Your task to perform on an android device: turn on translation in the chrome app Image 0: 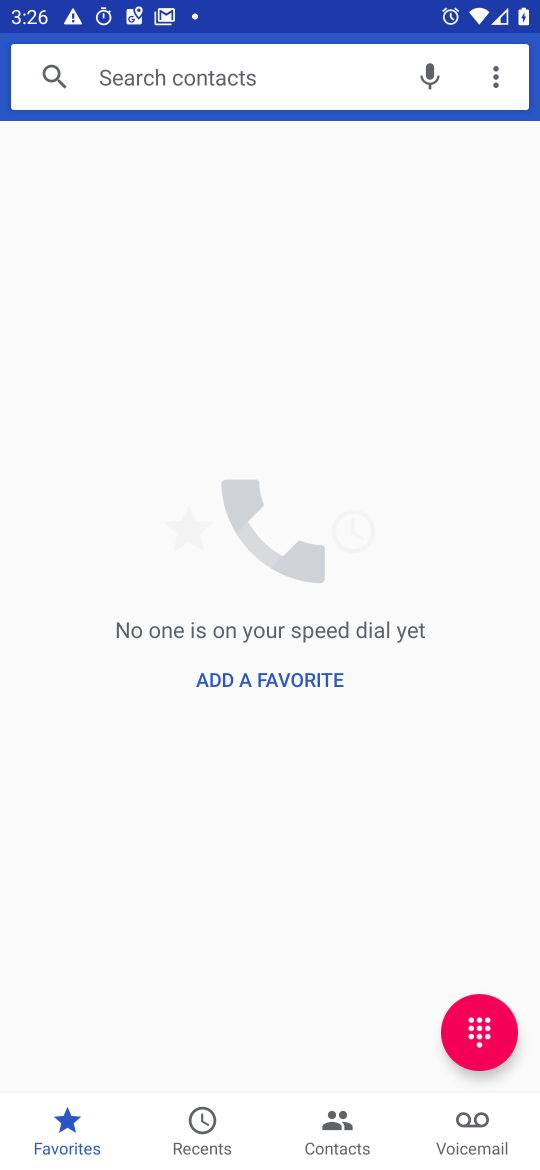
Step 0: press home button
Your task to perform on an android device: turn on translation in the chrome app Image 1: 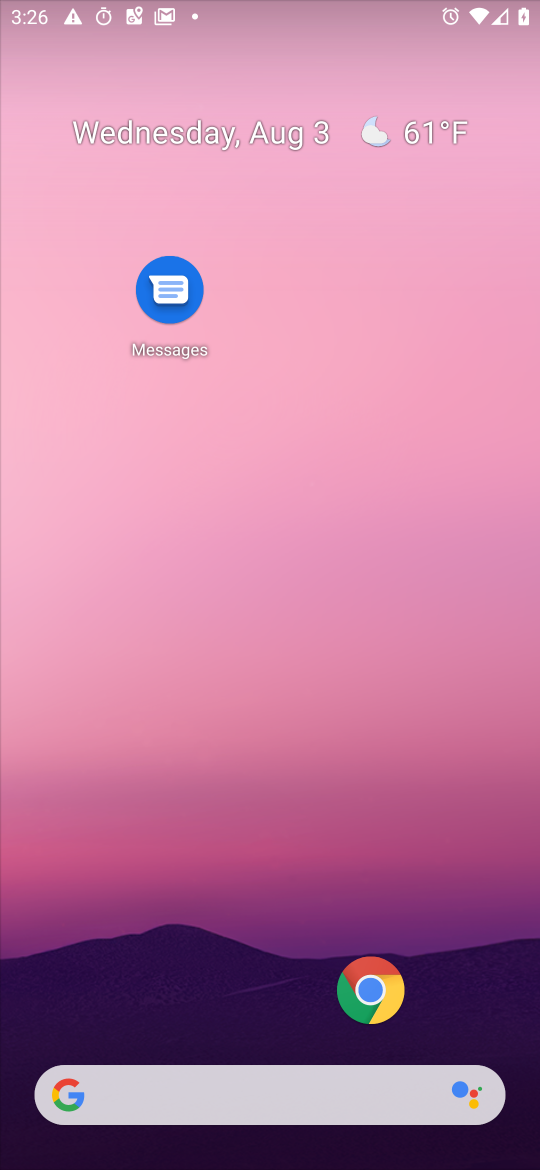
Step 1: drag from (276, 1026) to (281, 200)
Your task to perform on an android device: turn on translation in the chrome app Image 2: 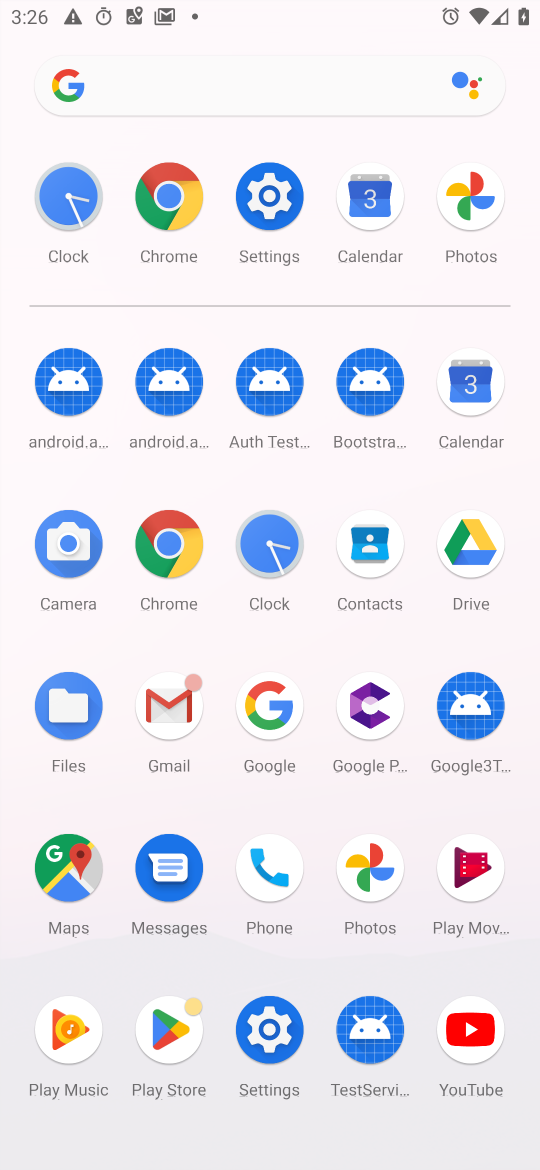
Step 2: click (187, 193)
Your task to perform on an android device: turn on translation in the chrome app Image 3: 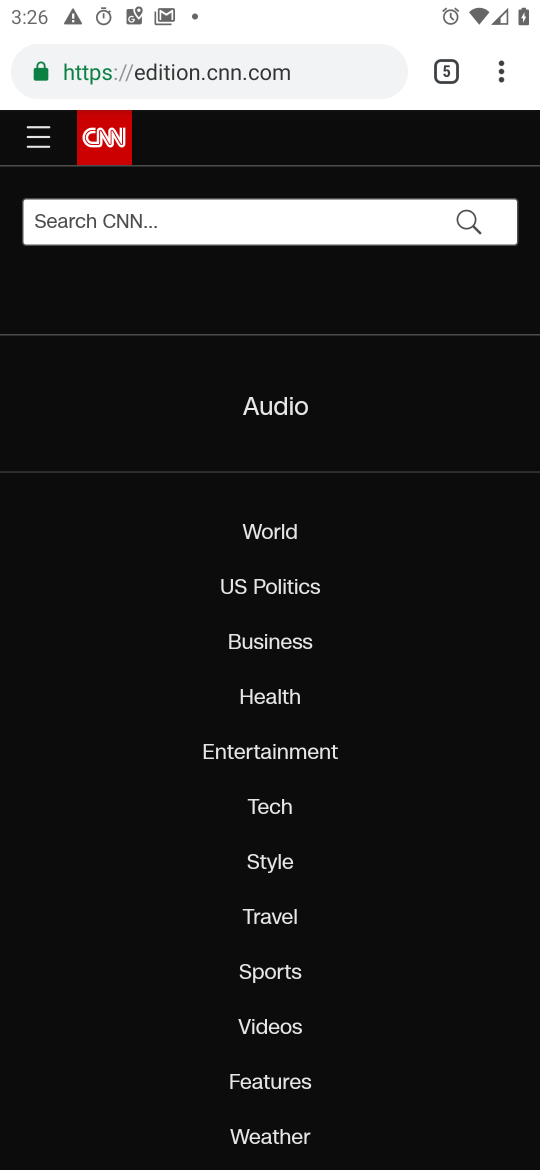
Step 3: click (503, 73)
Your task to perform on an android device: turn on translation in the chrome app Image 4: 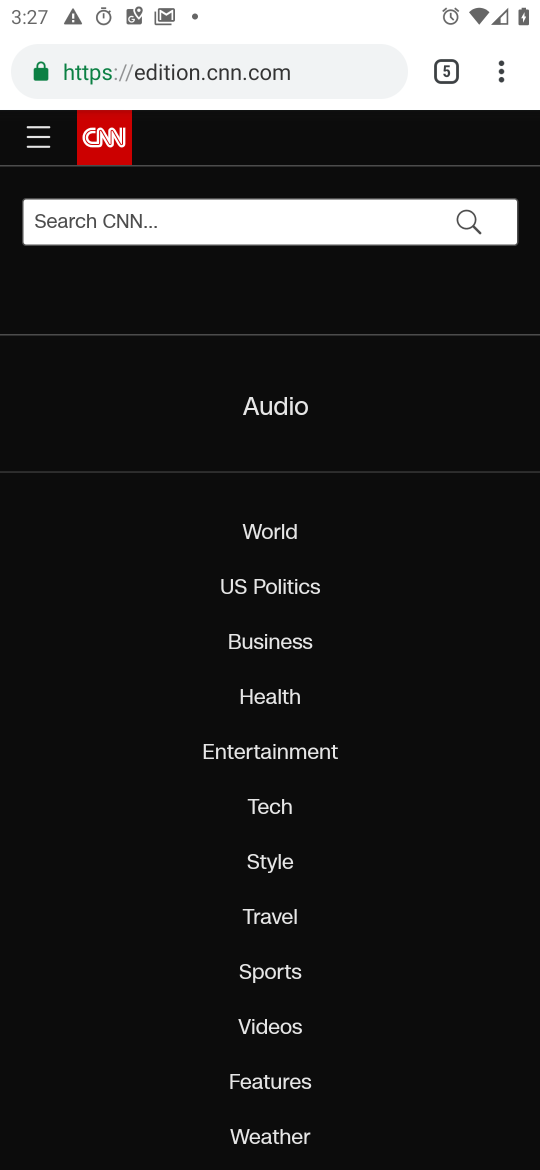
Step 4: click (503, 73)
Your task to perform on an android device: turn on translation in the chrome app Image 5: 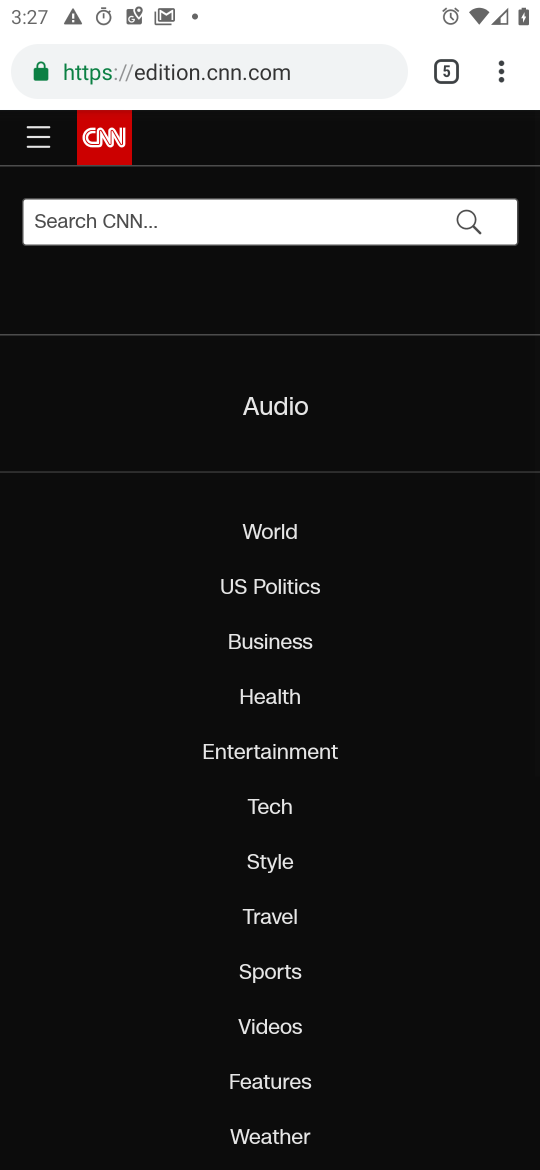
Step 5: click (515, 80)
Your task to perform on an android device: turn on translation in the chrome app Image 6: 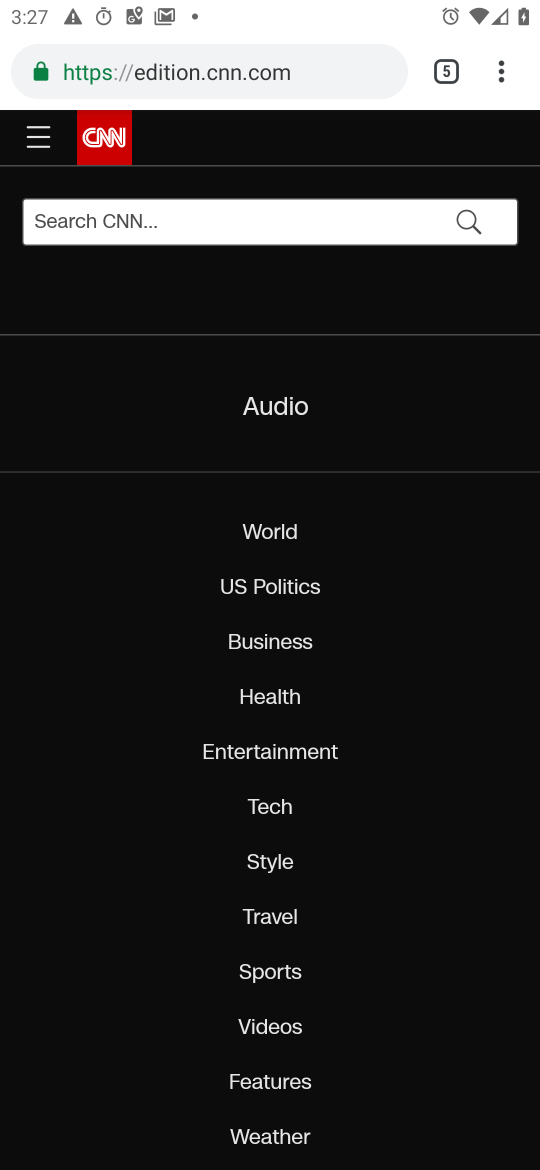
Step 6: click (504, 69)
Your task to perform on an android device: turn on translation in the chrome app Image 7: 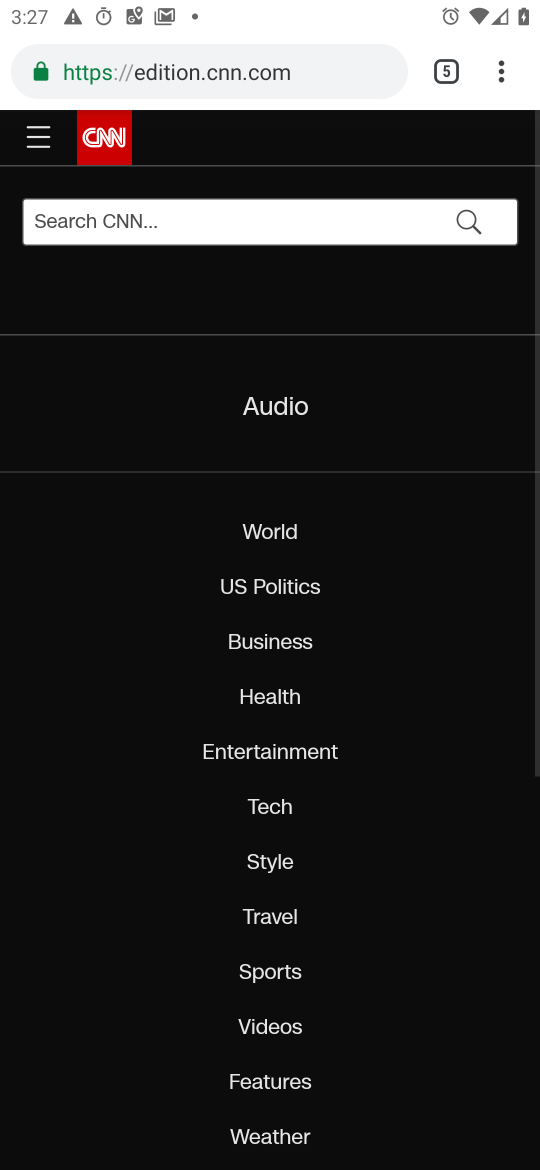
Step 7: click (496, 74)
Your task to perform on an android device: turn on translation in the chrome app Image 8: 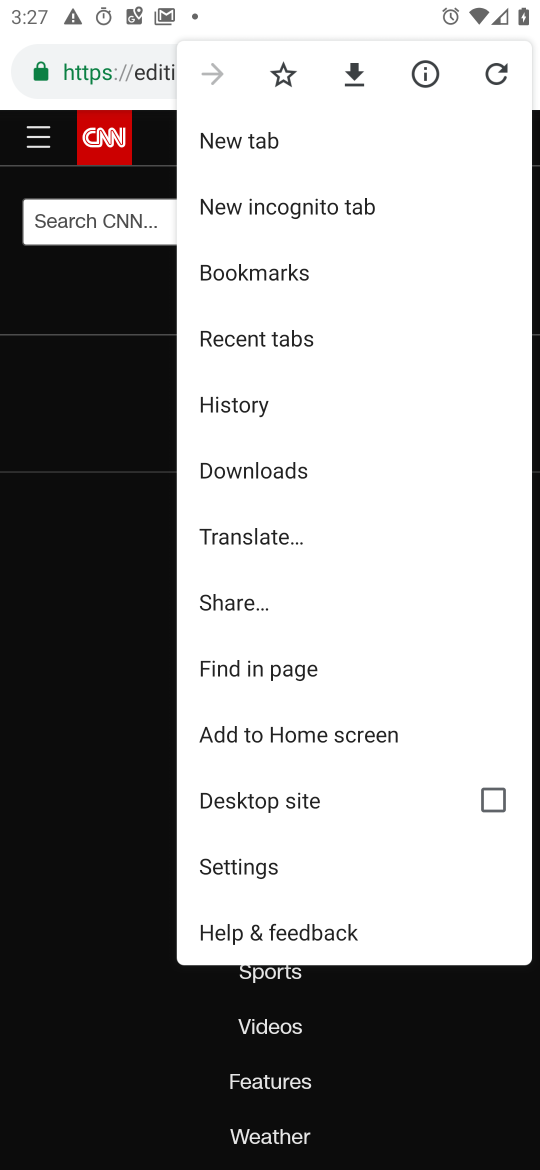
Step 8: click (256, 861)
Your task to perform on an android device: turn on translation in the chrome app Image 9: 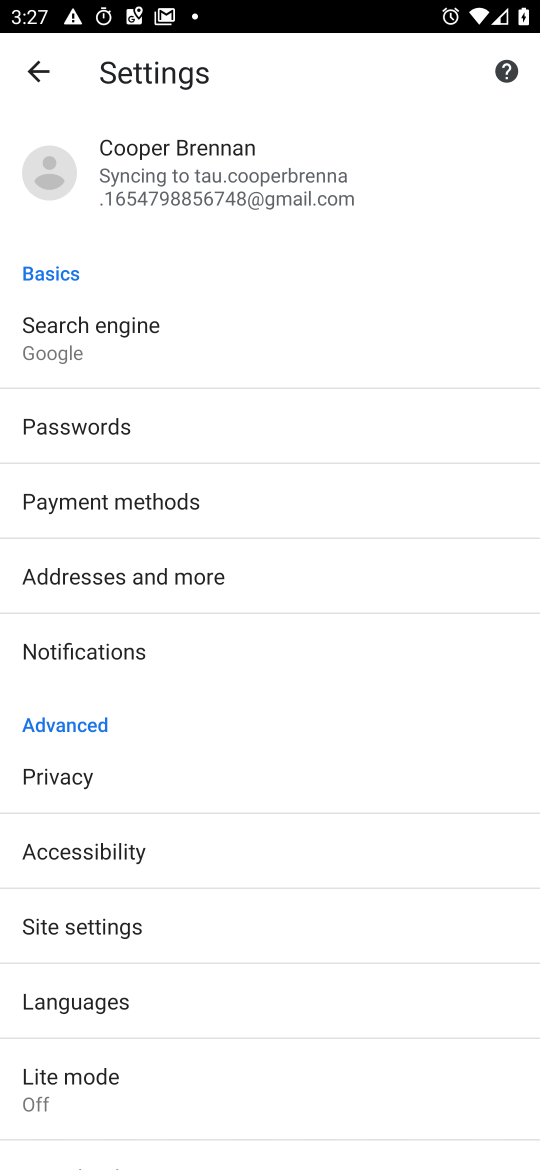
Step 9: click (98, 920)
Your task to perform on an android device: turn on translation in the chrome app Image 10: 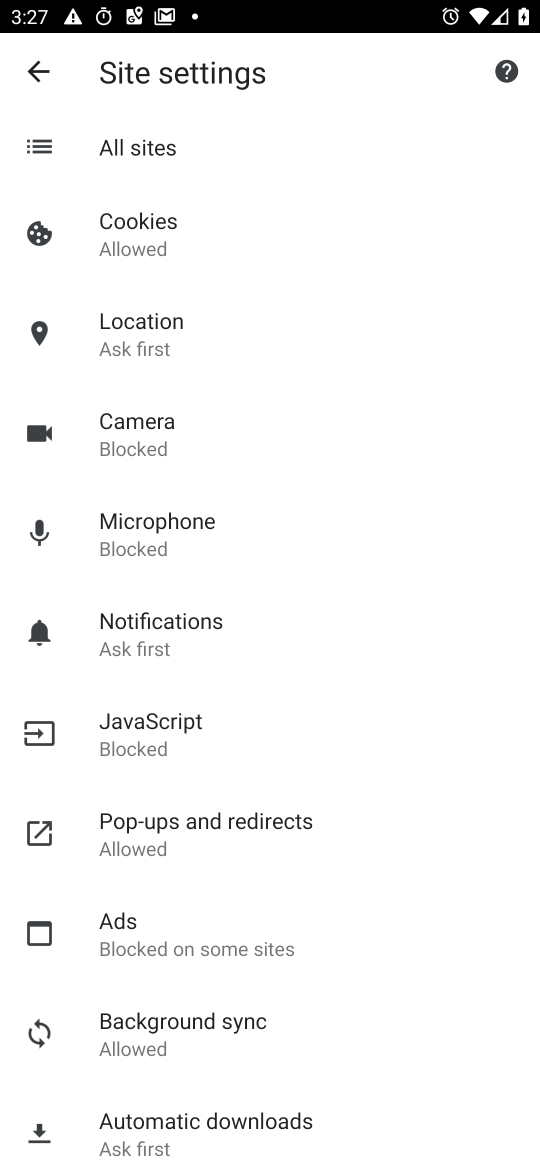
Step 10: click (38, 49)
Your task to perform on an android device: turn on translation in the chrome app Image 11: 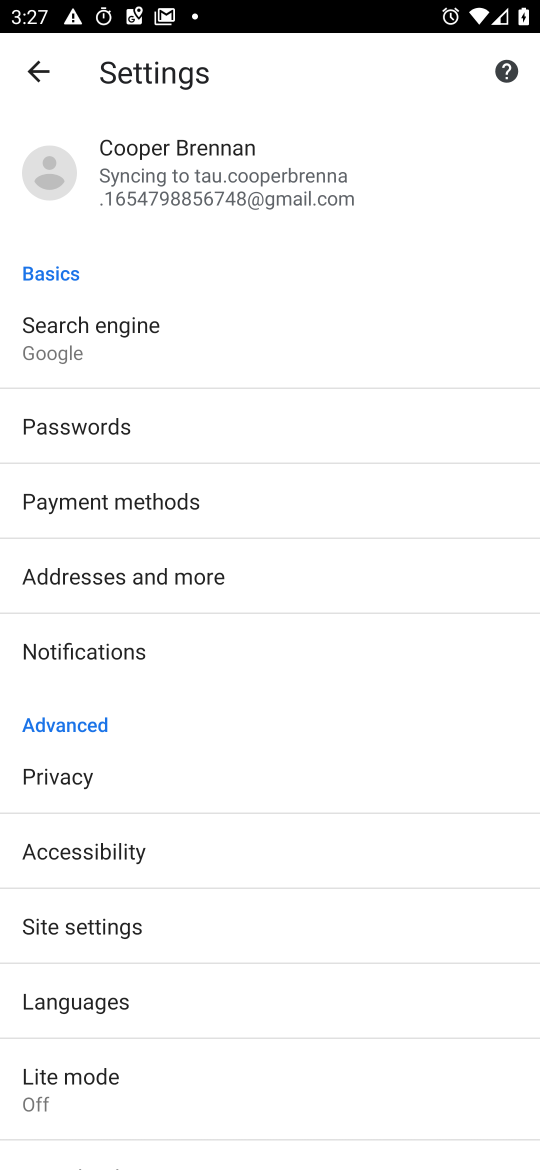
Step 11: drag from (150, 1097) to (138, 603)
Your task to perform on an android device: turn on translation in the chrome app Image 12: 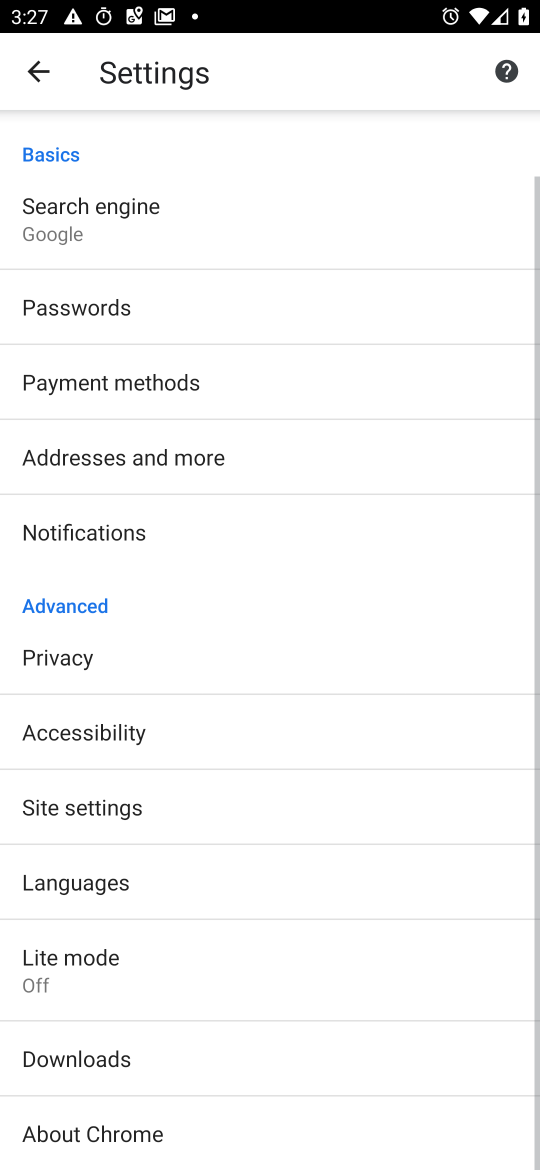
Step 12: drag from (103, 1132) to (115, 702)
Your task to perform on an android device: turn on translation in the chrome app Image 13: 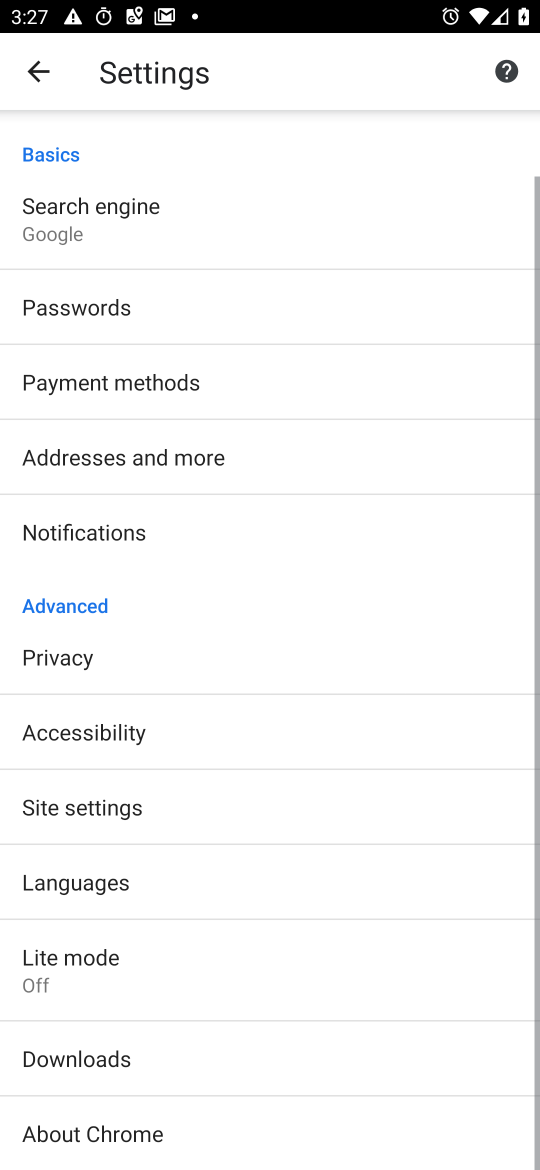
Step 13: click (131, 869)
Your task to perform on an android device: turn on translation in the chrome app Image 14: 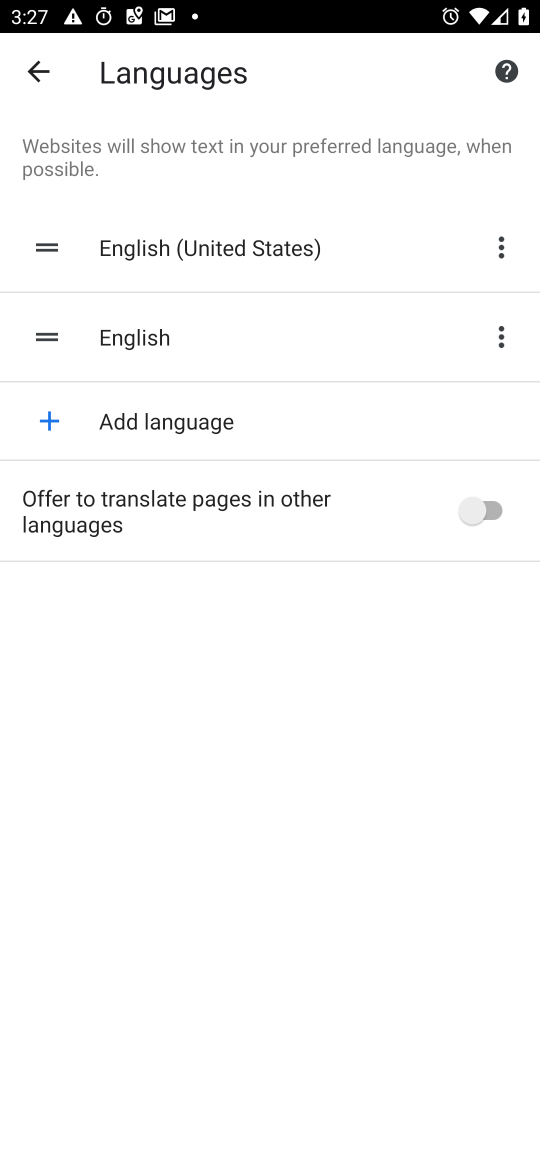
Step 14: click (487, 506)
Your task to perform on an android device: turn on translation in the chrome app Image 15: 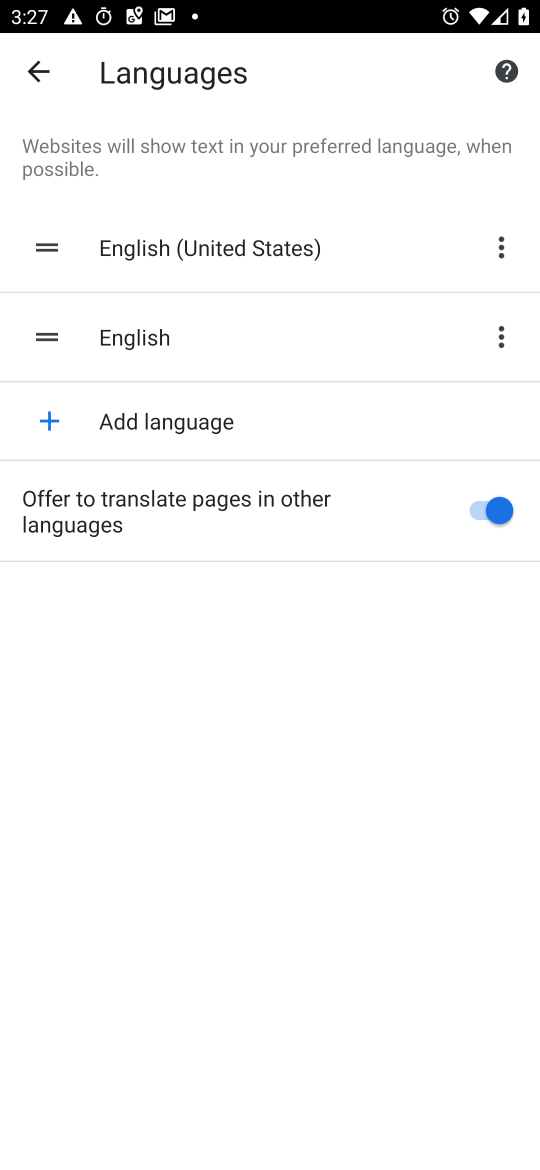
Step 15: task complete